Your task to perform on an android device: Open settings Image 0: 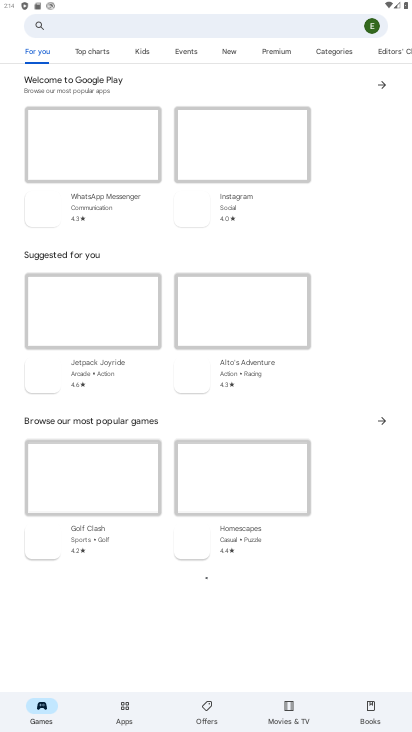
Step 0: press home button
Your task to perform on an android device: Open settings Image 1: 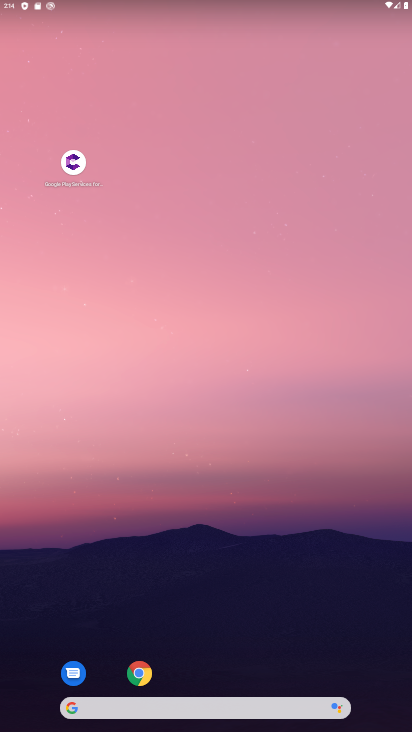
Step 1: drag from (382, 679) to (311, 106)
Your task to perform on an android device: Open settings Image 2: 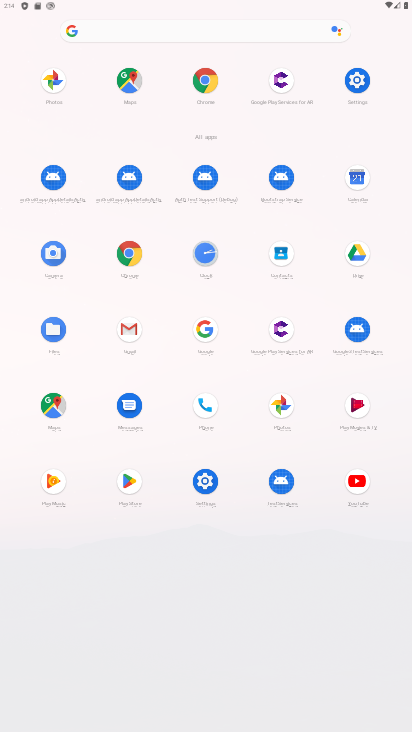
Step 2: click (204, 478)
Your task to perform on an android device: Open settings Image 3: 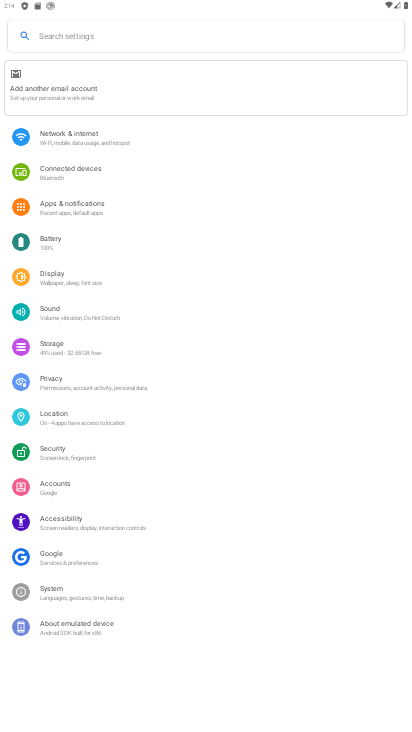
Step 3: task complete